Your task to perform on an android device: Open privacy settings Image 0: 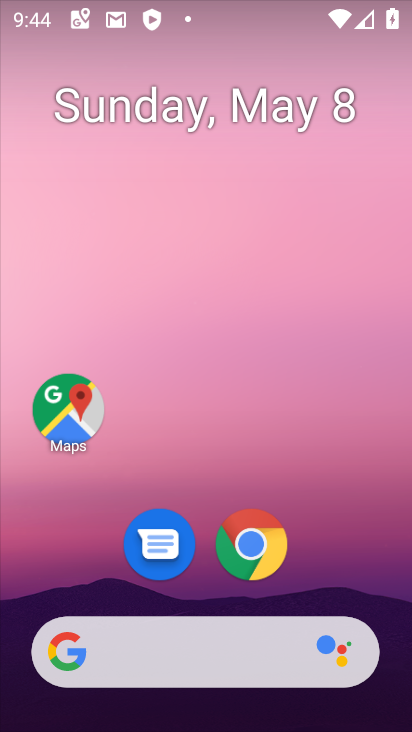
Step 0: drag from (333, 578) to (341, 101)
Your task to perform on an android device: Open privacy settings Image 1: 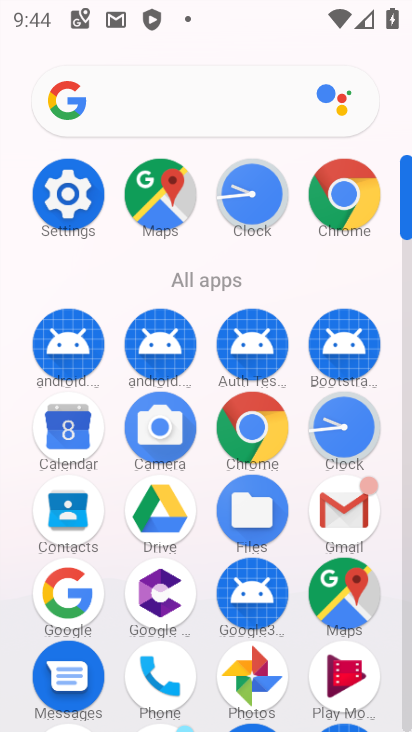
Step 1: click (63, 211)
Your task to perform on an android device: Open privacy settings Image 2: 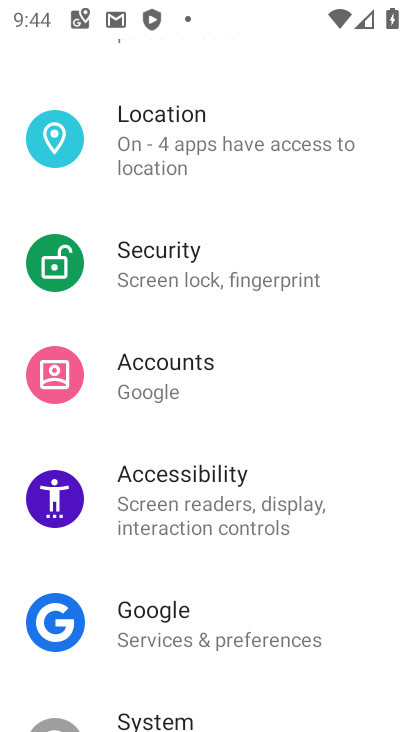
Step 2: drag from (248, 463) to (260, 204)
Your task to perform on an android device: Open privacy settings Image 3: 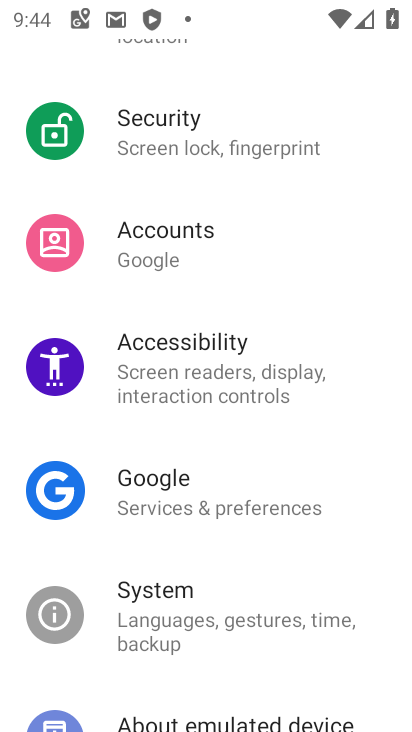
Step 3: drag from (245, 252) to (272, 446)
Your task to perform on an android device: Open privacy settings Image 4: 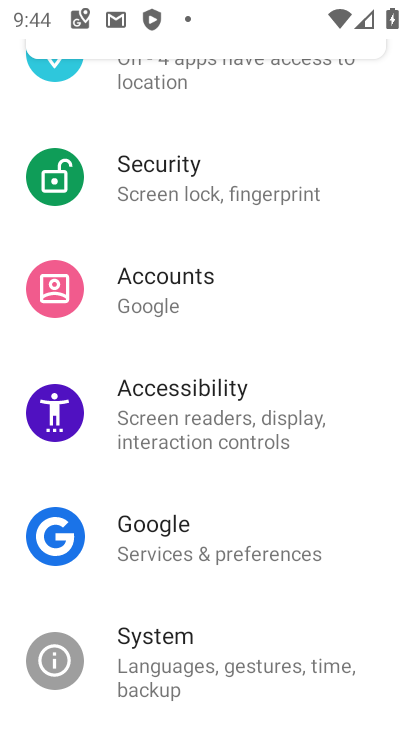
Step 4: drag from (259, 166) to (278, 460)
Your task to perform on an android device: Open privacy settings Image 5: 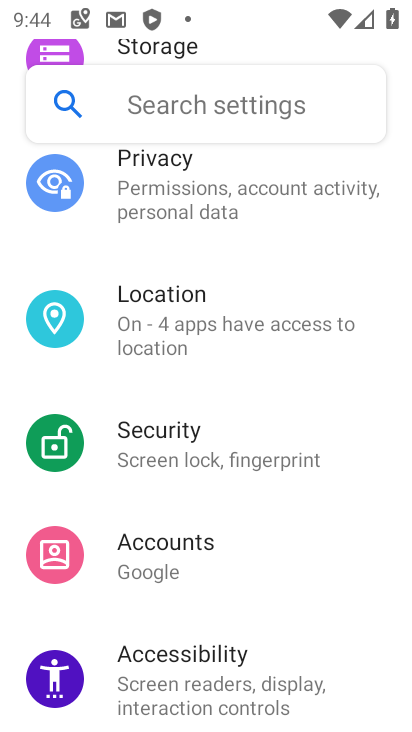
Step 5: click (276, 183)
Your task to perform on an android device: Open privacy settings Image 6: 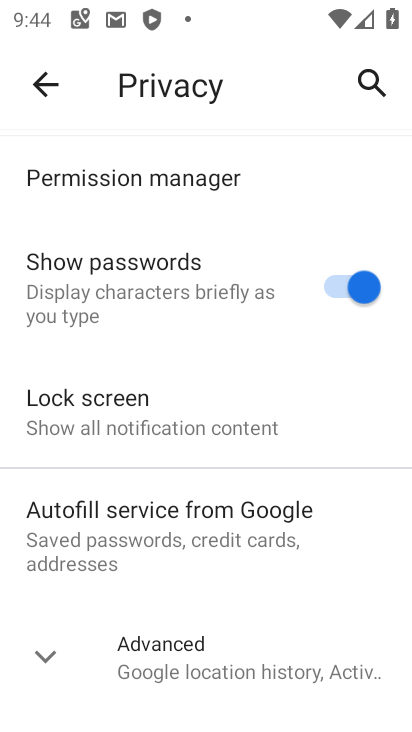
Step 6: task complete